Your task to perform on an android device: turn on priority inbox in the gmail app Image 0: 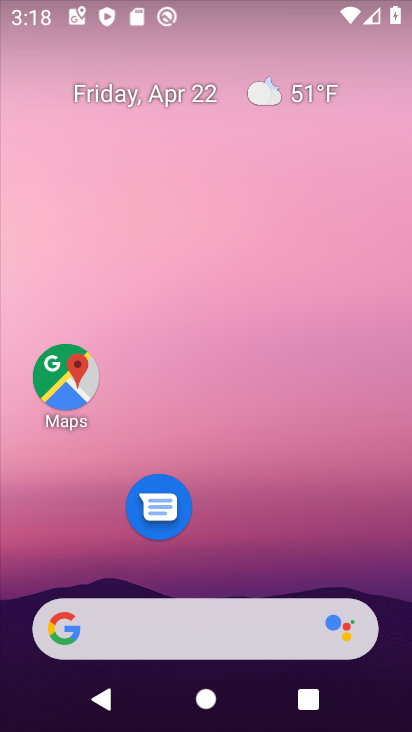
Step 0: drag from (181, 556) to (244, 63)
Your task to perform on an android device: turn on priority inbox in the gmail app Image 1: 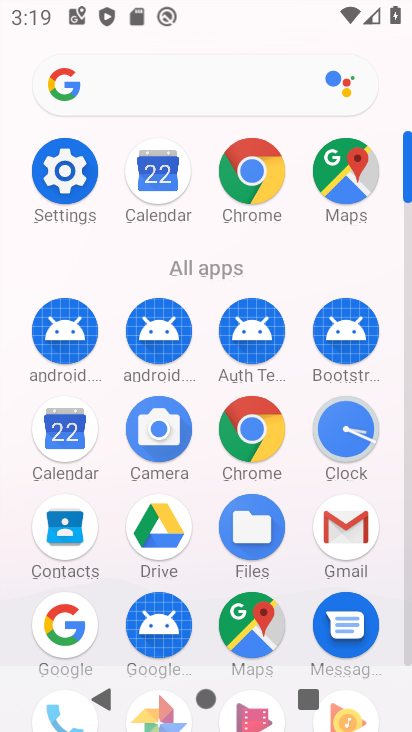
Step 1: click (69, 176)
Your task to perform on an android device: turn on priority inbox in the gmail app Image 2: 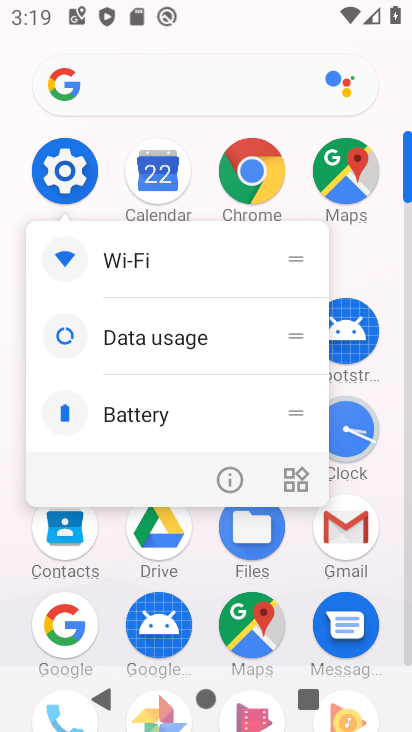
Step 2: click (351, 532)
Your task to perform on an android device: turn on priority inbox in the gmail app Image 3: 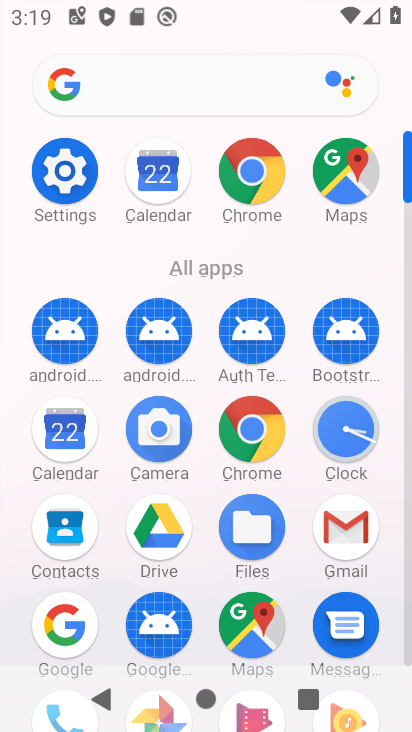
Step 3: click (346, 530)
Your task to perform on an android device: turn on priority inbox in the gmail app Image 4: 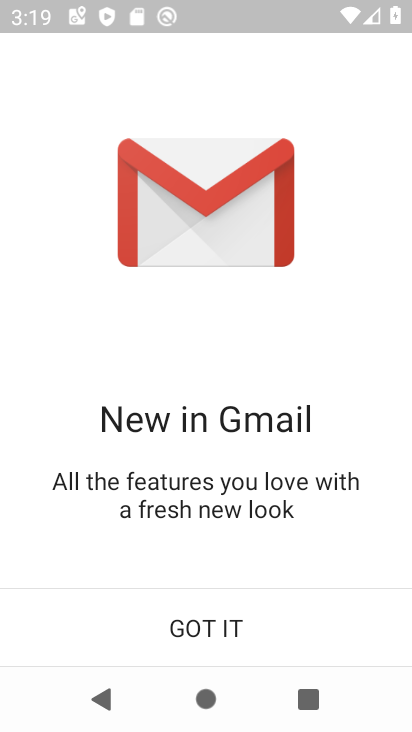
Step 4: click (233, 647)
Your task to perform on an android device: turn on priority inbox in the gmail app Image 5: 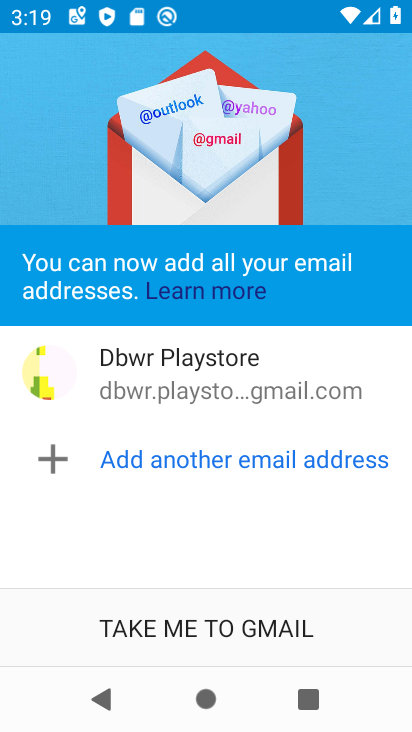
Step 5: click (229, 633)
Your task to perform on an android device: turn on priority inbox in the gmail app Image 6: 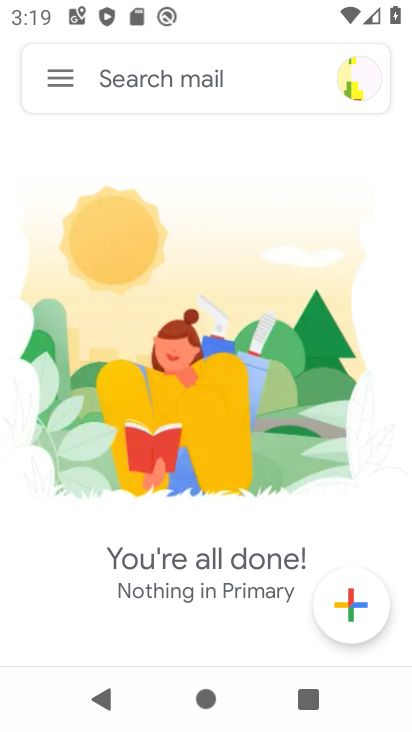
Step 6: click (52, 77)
Your task to perform on an android device: turn on priority inbox in the gmail app Image 7: 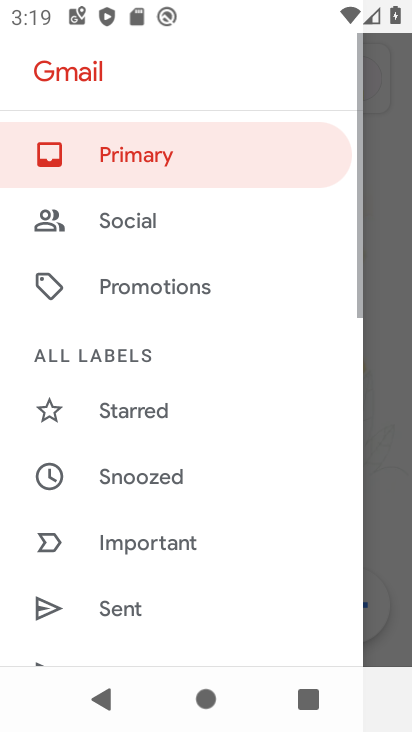
Step 7: drag from (196, 518) to (268, 53)
Your task to perform on an android device: turn on priority inbox in the gmail app Image 8: 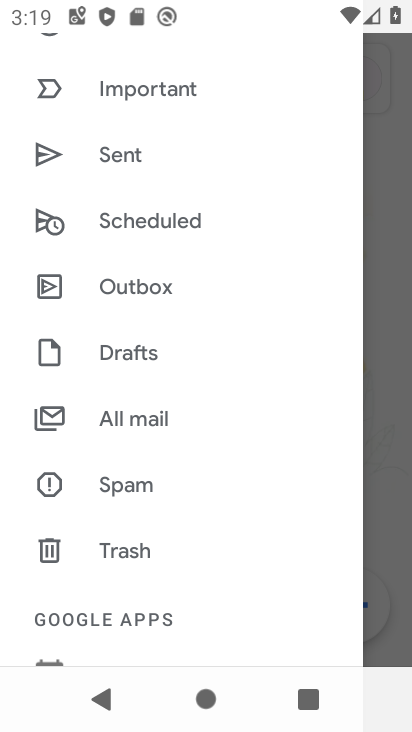
Step 8: drag from (100, 601) to (228, 4)
Your task to perform on an android device: turn on priority inbox in the gmail app Image 9: 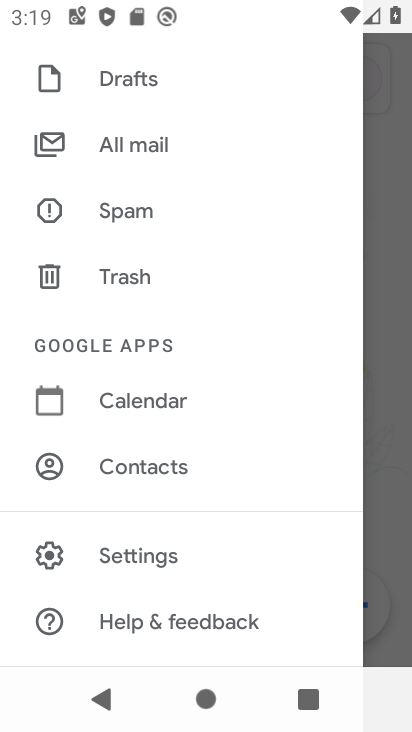
Step 9: click (210, 550)
Your task to perform on an android device: turn on priority inbox in the gmail app Image 10: 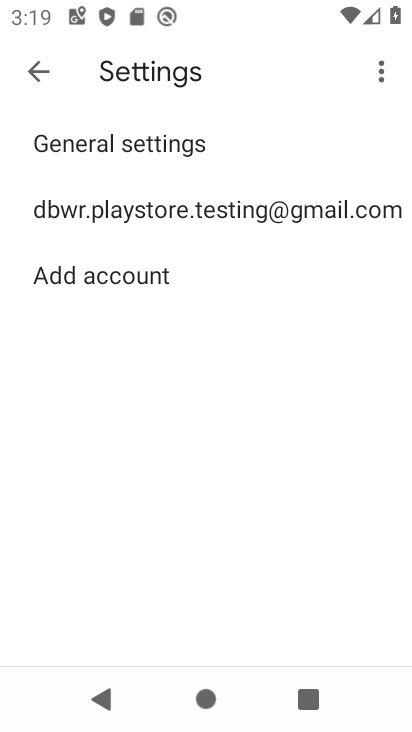
Step 10: click (173, 198)
Your task to perform on an android device: turn on priority inbox in the gmail app Image 11: 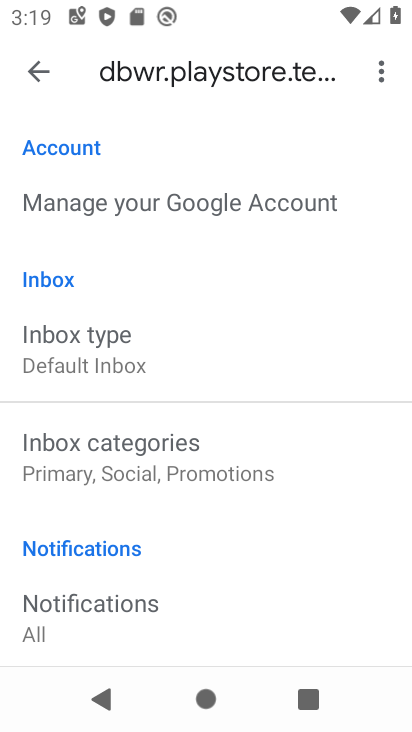
Step 11: click (80, 340)
Your task to perform on an android device: turn on priority inbox in the gmail app Image 12: 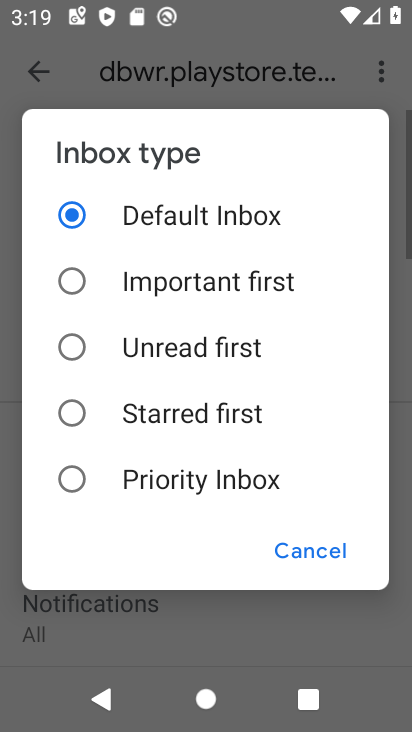
Step 12: click (75, 478)
Your task to perform on an android device: turn on priority inbox in the gmail app Image 13: 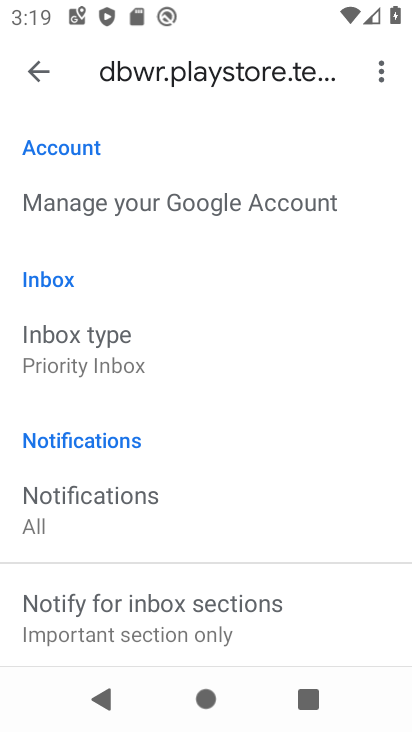
Step 13: task complete